Your task to perform on an android device: Open the calendar and show me this week's events Image 0: 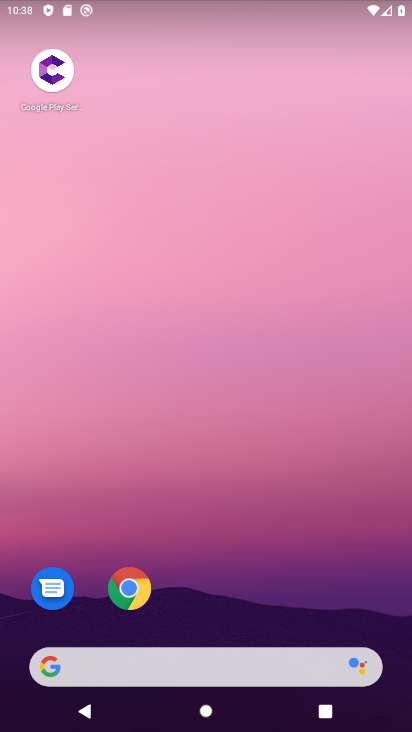
Step 0: drag from (298, 599) to (269, 147)
Your task to perform on an android device: Open the calendar and show me this week's events Image 1: 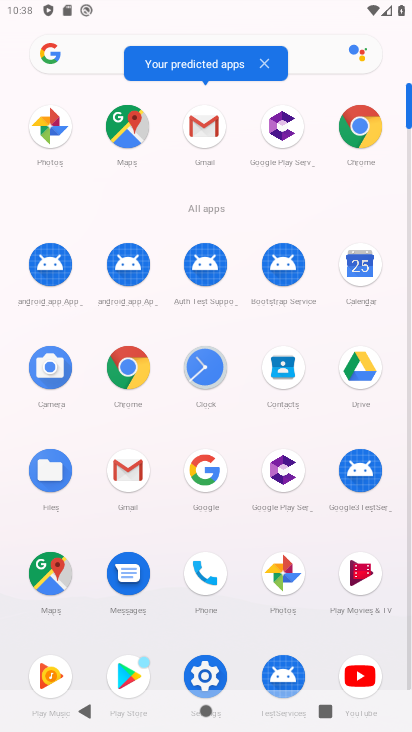
Step 1: drag from (349, 268) to (128, 177)
Your task to perform on an android device: Open the calendar and show me this week's events Image 2: 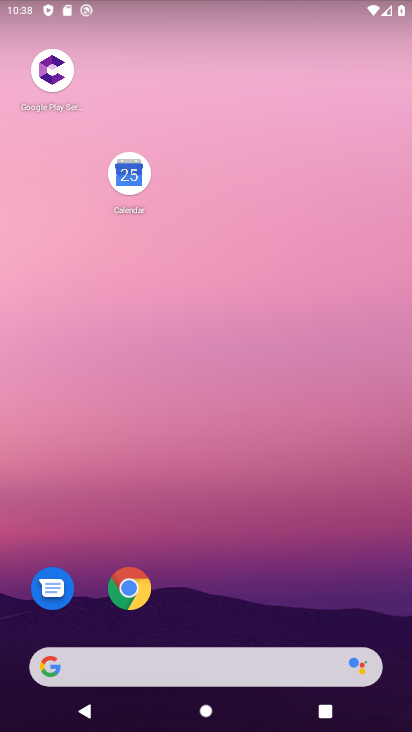
Step 2: drag from (134, 182) to (61, 175)
Your task to perform on an android device: Open the calendar and show me this week's events Image 3: 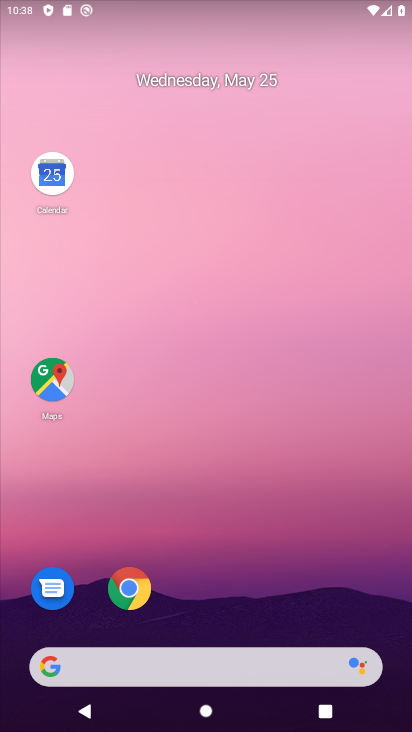
Step 3: click (53, 176)
Your task to perform on an android device: Open the calendar and show me this week's events Image 4: 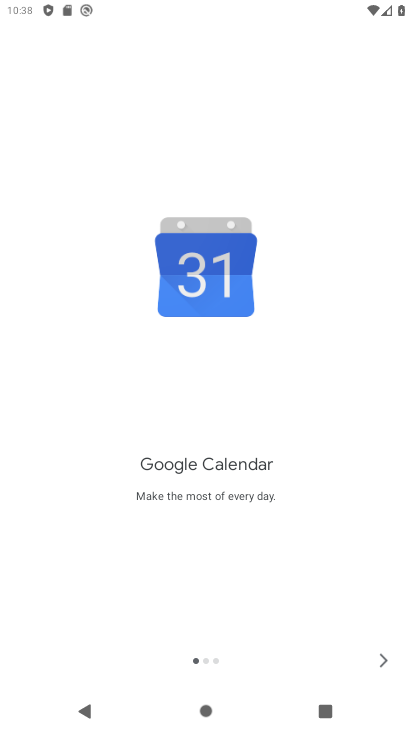
Step 4: click (390, 670)
Your task to perform on an android device: Open the calendar and show me this week's events Image 5: 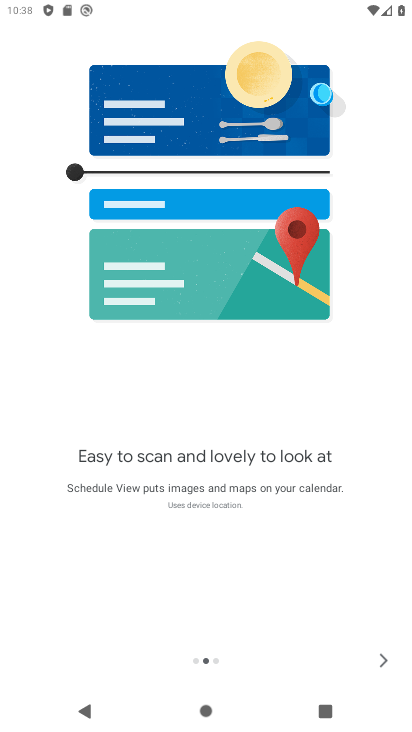
Step 5: click (381, 660)
Your task to perform on an android device: Open the calendar and show me this week's events Image 6: 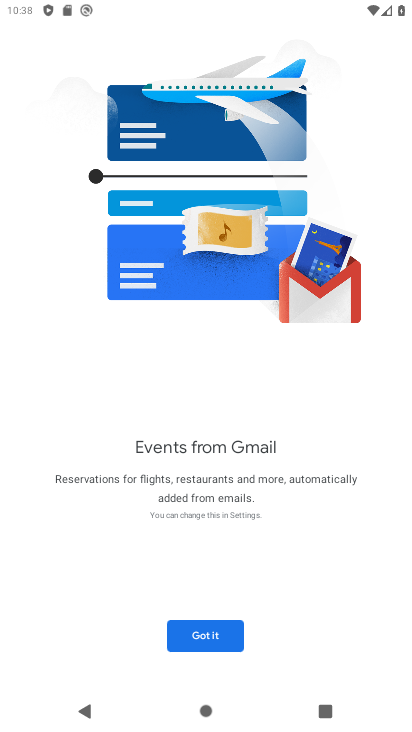
Step 6: click (218, 641)
Your task to perform on an android device: Open the calendar and show me this week's events Image 7: 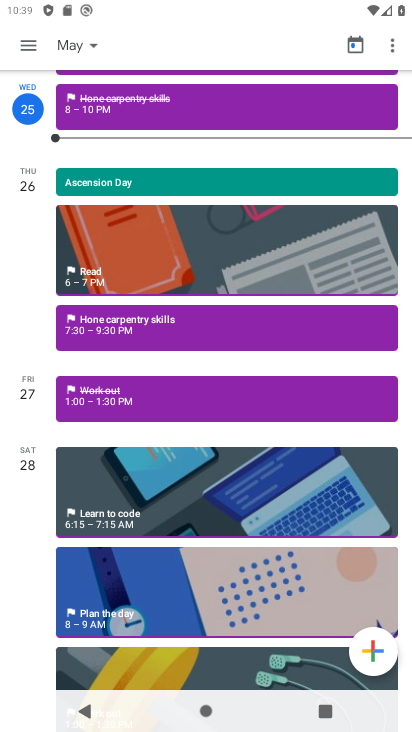
Step 7: click (32, 43)
Your task to perform on an android device: Open the calendar and show me this week's events Image 8: 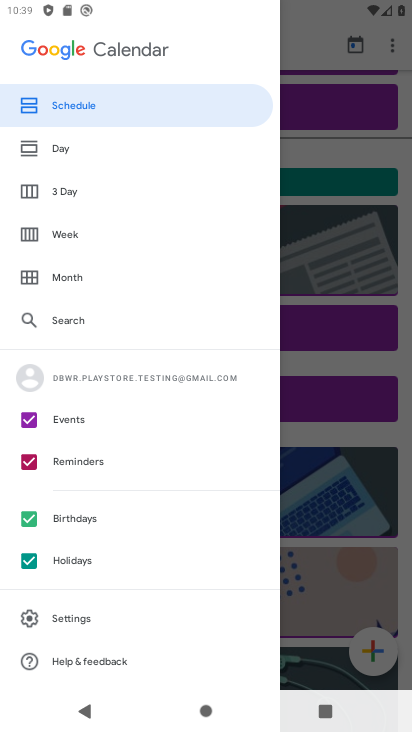
Step 8: click (92, 236)
Your task to perform on an android device: Open the calendar and show me this week's events Image 9: 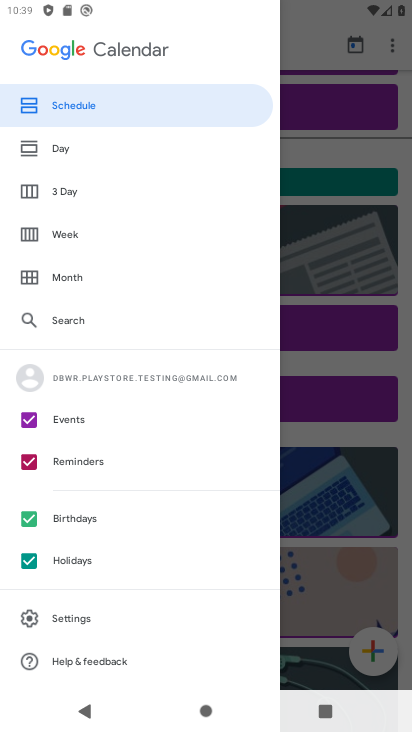
Step 9: click (55, 230)
Your task to perform on an android device: Open the calendar and show me this week's events Image 10: 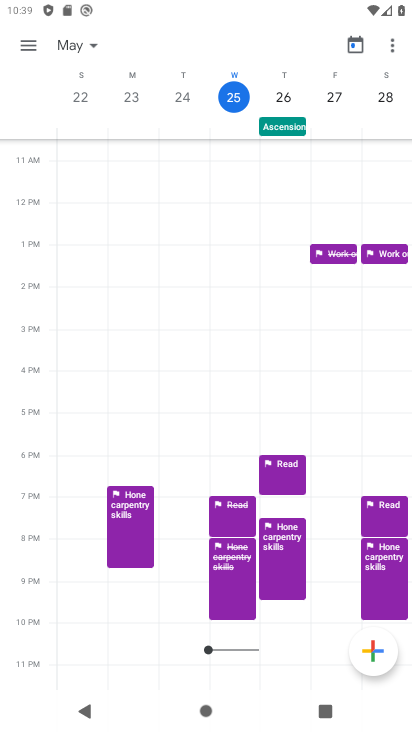
Step 10: task complete